Your task to perform on an android device: What's the weather today? Image 0: 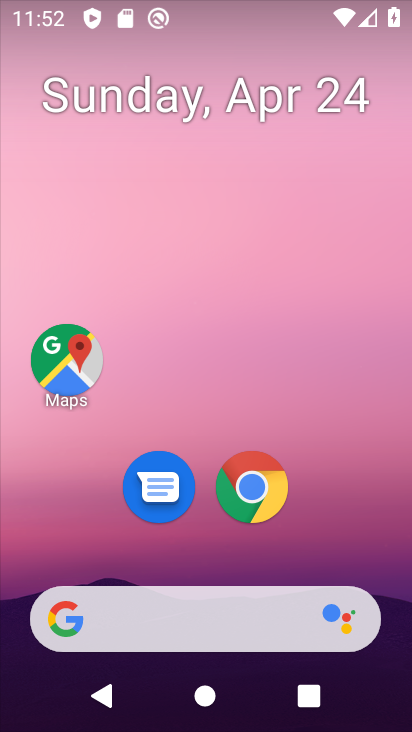
Step 0: click (216, 610)
Your task to perform on an android device: What's the weather today? Image 1: 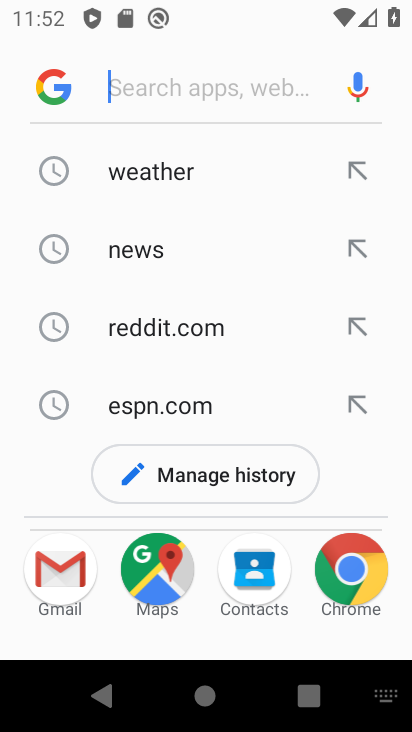
Step 1: click (201, 166)
Your task to perform on an android device: What's the weather today? Image 2: 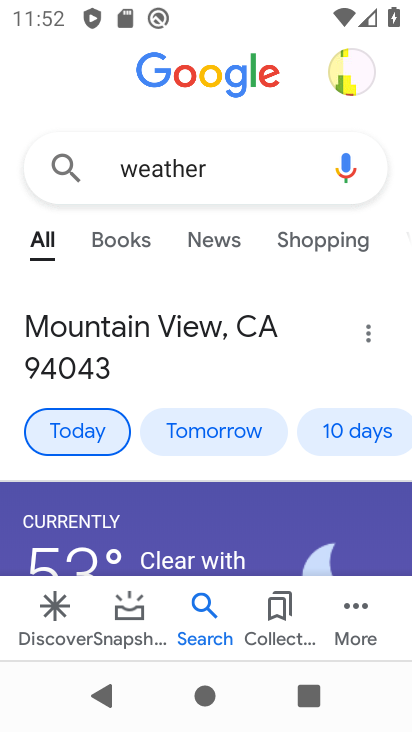
Step 2: task complete